Your task to perform on an android device: Open CNN.com Image 0: 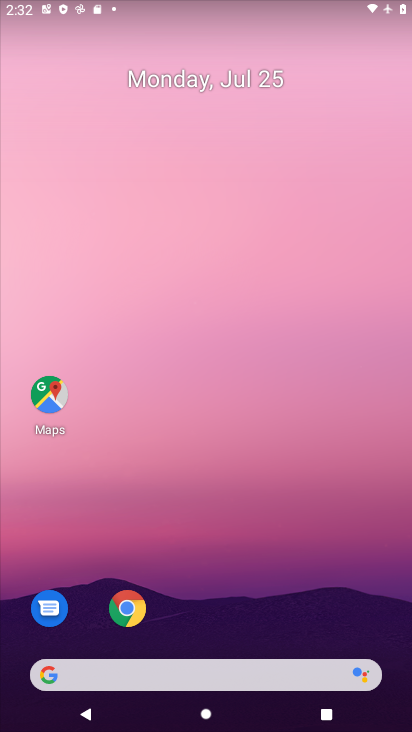
Step 0: drag from (203, 691) to (253, 189)
Your task to perform on an android device: Open CNN.com Image 1: 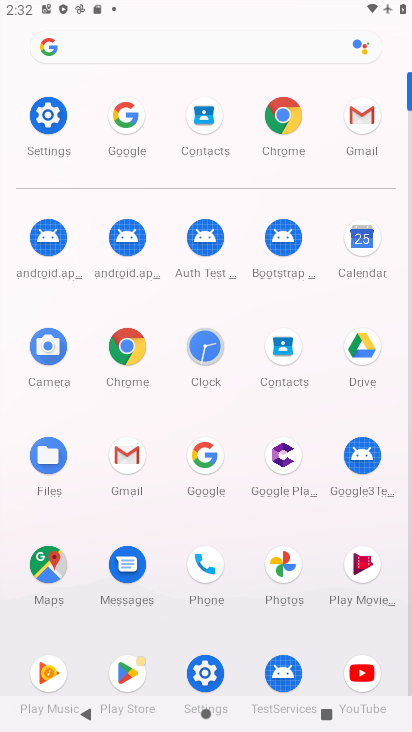
Step 1: click (122, 370)
Your task to perform on an android device: Open CNN.com Image 2: 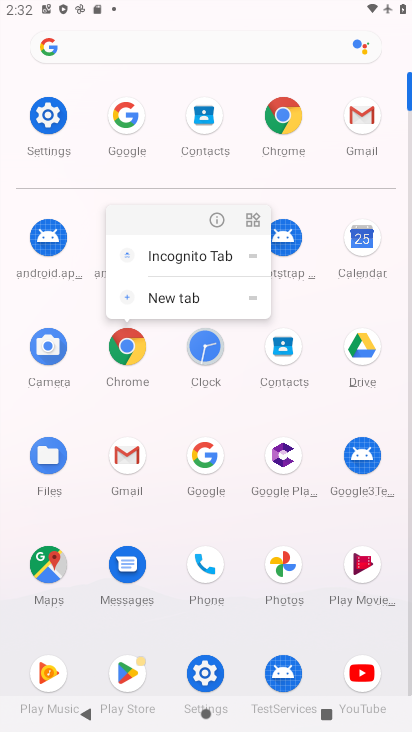
Step 2: click (137, 364)
Your task to perform on an android device: Open CNN.com Image 3: 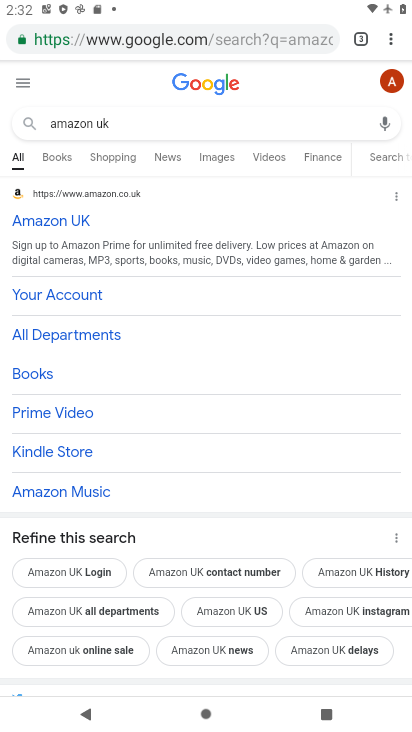
Step 3: click (270, 36)
Your task to perform on an android device: Open CNN.com Image 4: 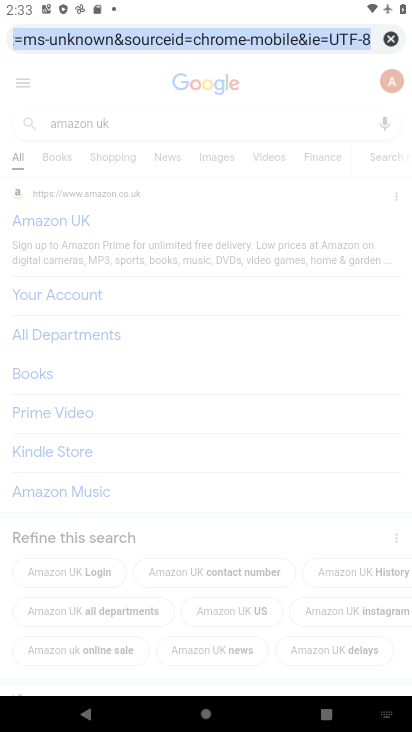
Step 4: type "cnn.com"
Your task to perform on an android device: Open CNN.com Image 5: 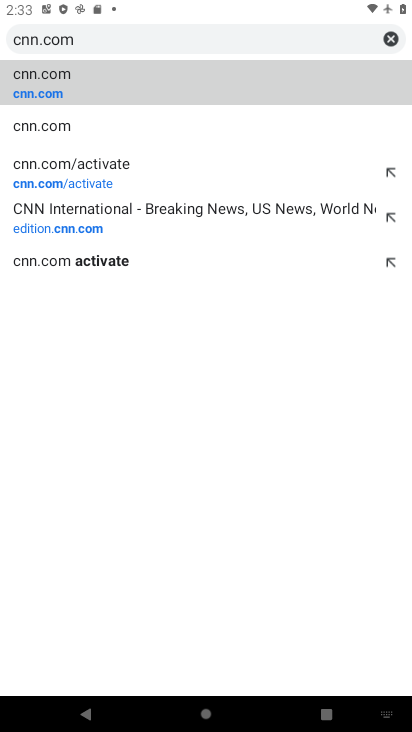
Step 5: click (113, 88)
Your task to perform on an android device: Open CNN.com Image 6: 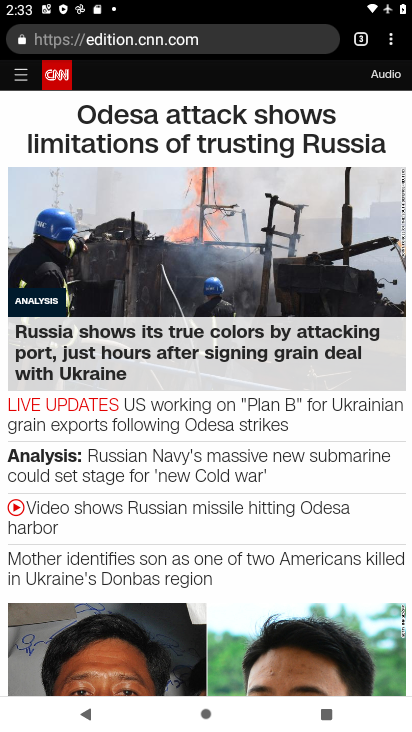
Step 6: task complete